Your task to perform on an android device: Open Reddit.com Image 0: 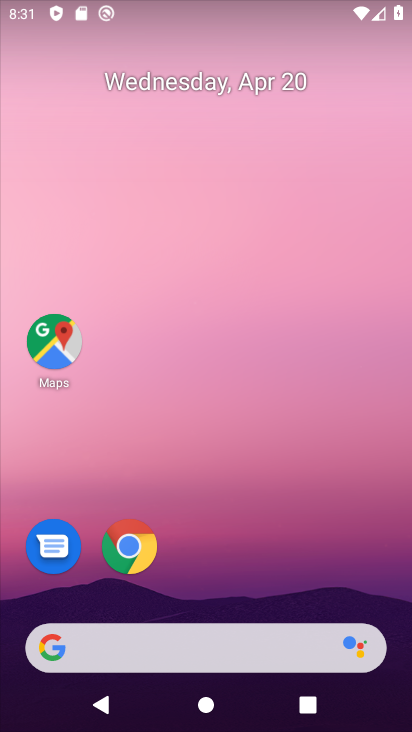
Step 0: click (137, 556)
Your task to perform on an android device: Open Reddit.com Image 1: 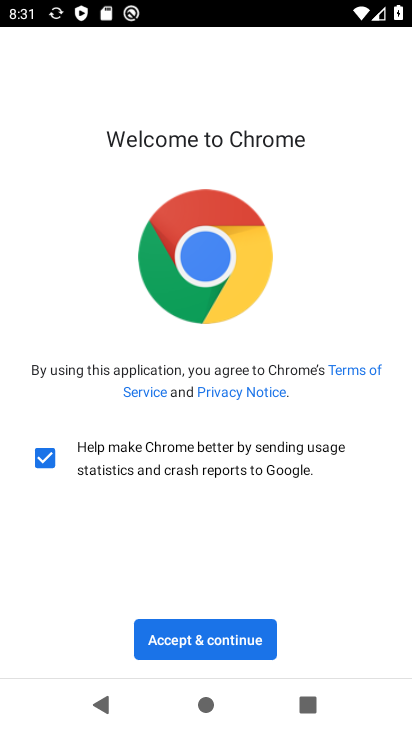
Step 1: click (197, 644)
Your task to perform on an android device: Open Reddit.com Image 2: 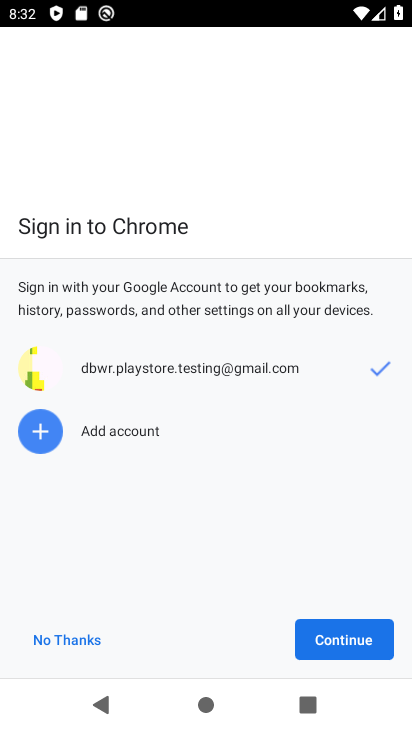
Step 2: click (336, 650)
Your task to perform on an android device: Open Reddit.com Image 3: 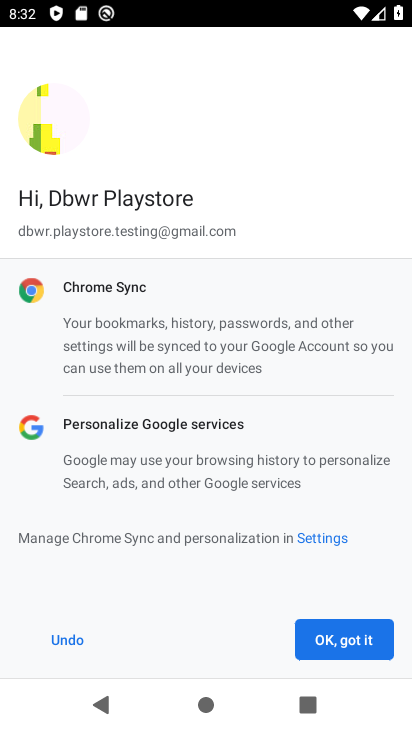
Step 3: click (336, 651)
Your task to perform on an android device: Open Reddit.com Image 4: 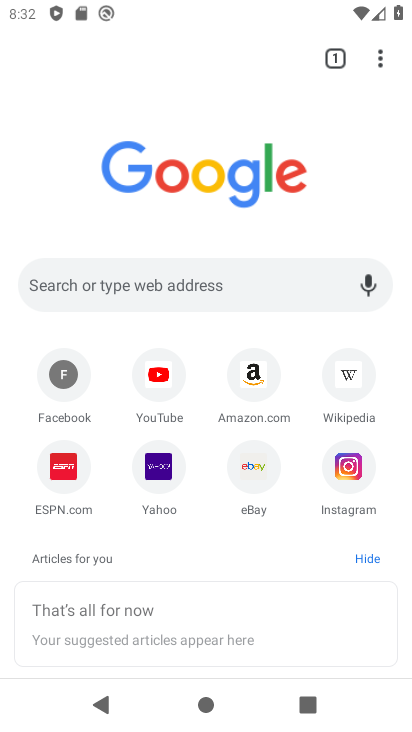
Step 4: click (162, 275)
Your task to perform on an android device: Open Reddit.com Image 5: 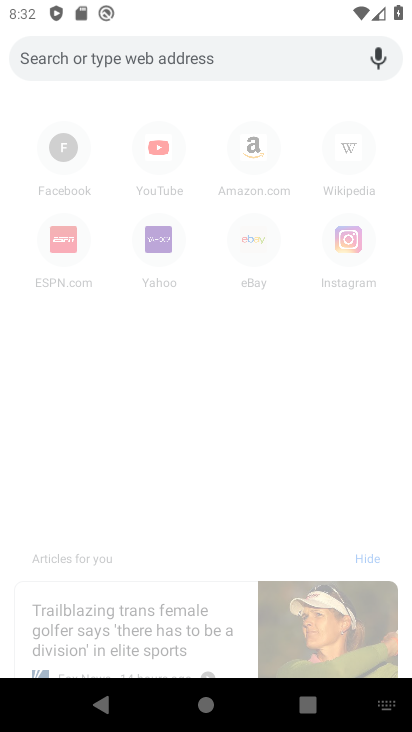
Step 5: type "reddit.com"
Your task to perform on an android device: Open Reddit.com Image 6: 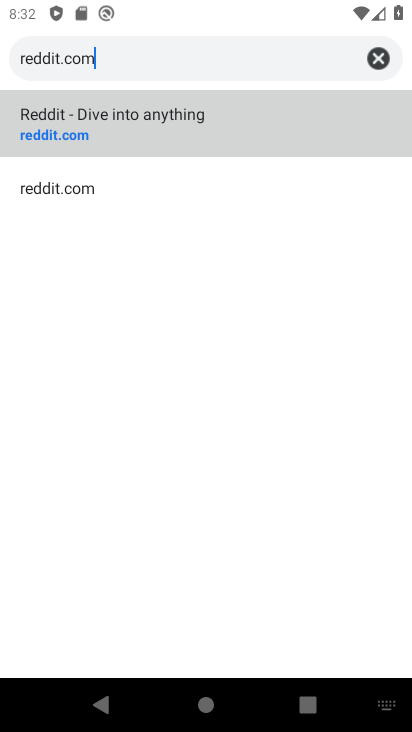
Step 6: click (114, 111)
Your task to perform on an android device: Open Reddit.com Image 7: 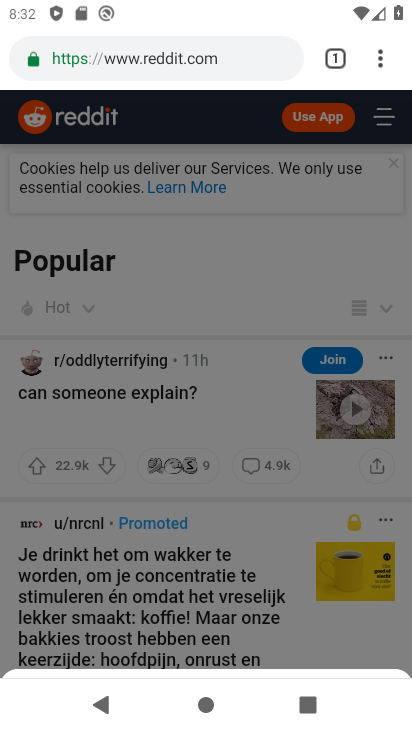
Step 7: task complete